Your task to perform on an android device: change alarm snooze length Image 0: 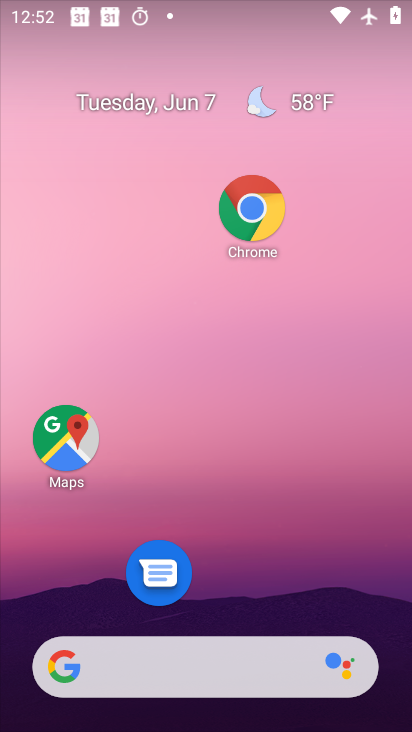
Step 0: drag from (200, 602) to (207, 190)
Your task to perform on an android device: change alarm snooze length Image 1: 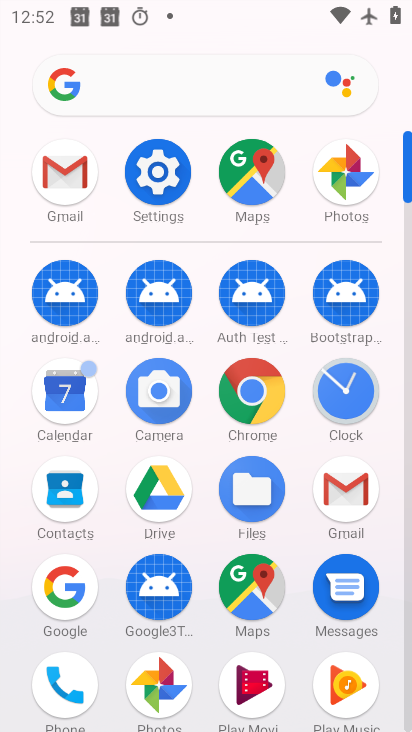
Step 1: click (333, 394)
Your task to perform on an android device: change alarm snooze length Image 2: 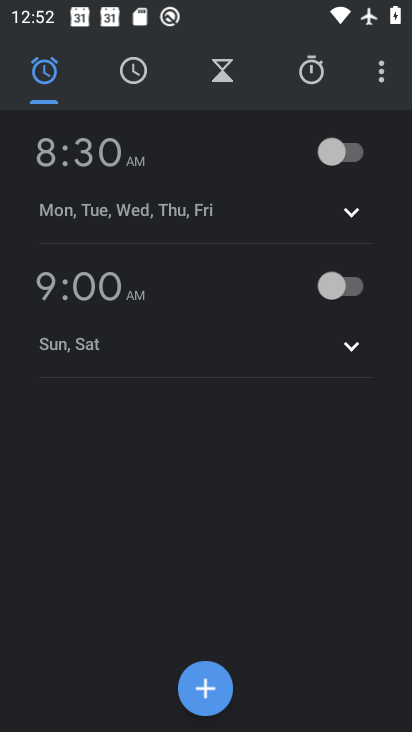
Step 2: click (370, 69)
Your task to perform on an android device: change alarm snooze length Image 3: 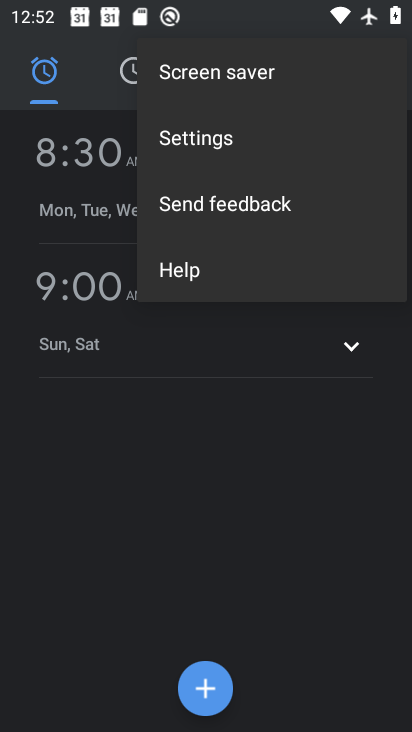
Step 3: click (299, 136)
Your task to perform on an android device: change alarm snooze length Image 4: 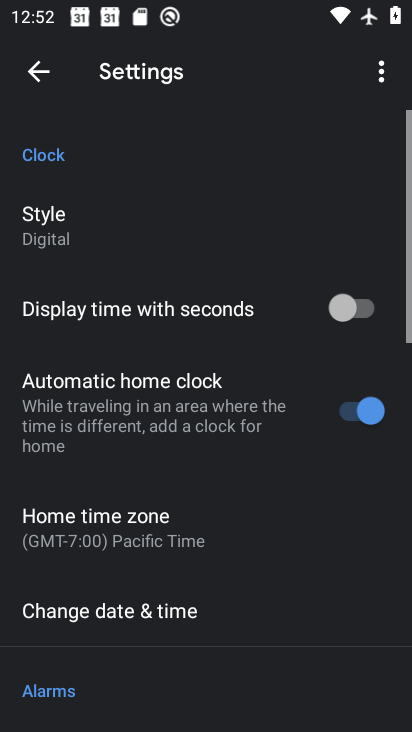
Step 4: drag from (229, 587) to (242, 190)
Your task to perform on an android device: change alarm snooze length Image 5: 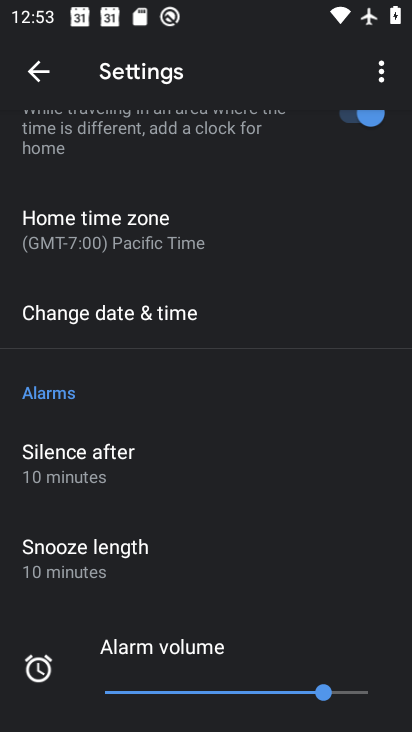
Step 5: click (143, 567)
Your task to perform on an android device: change alarm snooze length Image 6: 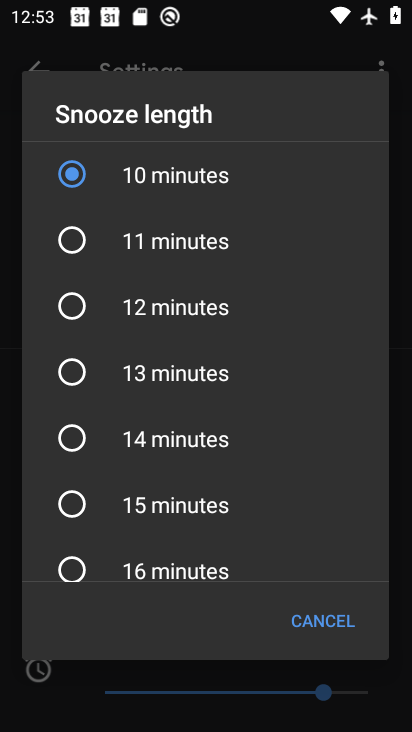
Step 6: click (161, 516)
Your task to perform on an android device: change alarm snooze length Image 7: 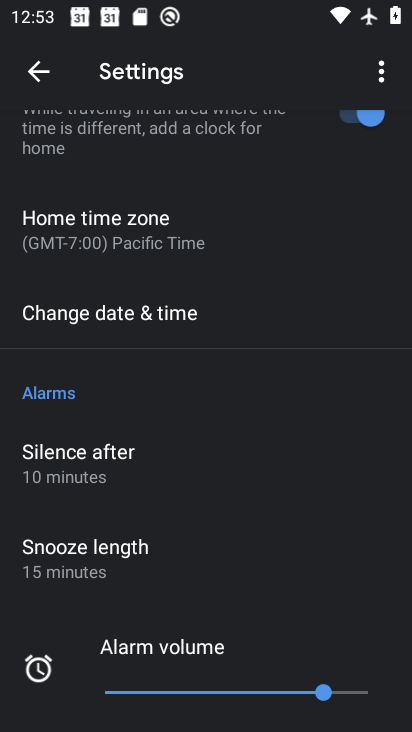
Step 7: task complete